Your task to perform on an android device: Open Wikipedia Image 0: 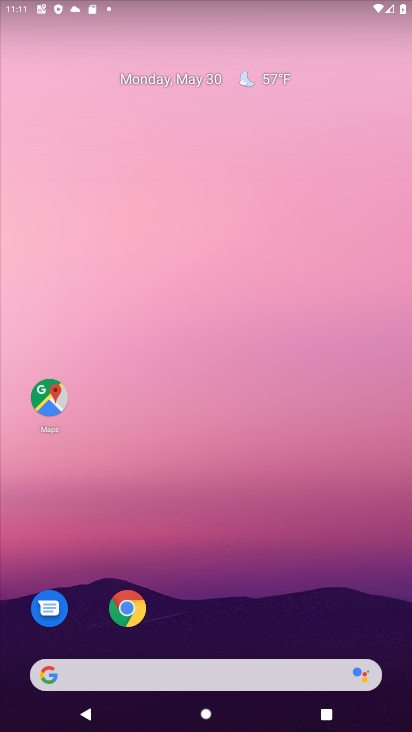
Step 0: drag from (308, 550) to (318, 15)
Your task to perform on an android device: Open Wikipedia Image 1: 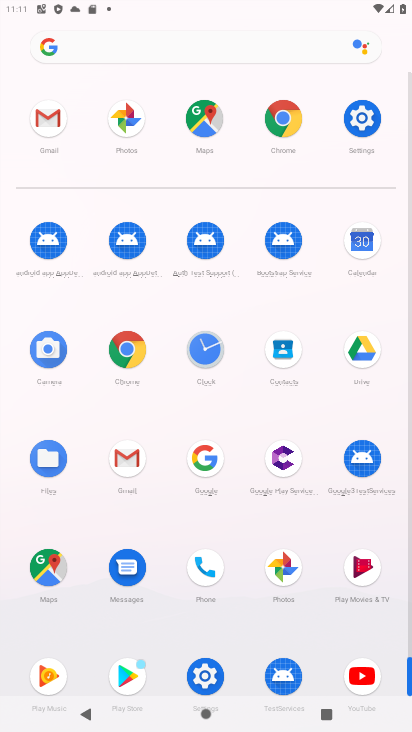
Step 1: click (129, 348)
Your task to perform on an android device: Open Wikipedia Image 2: 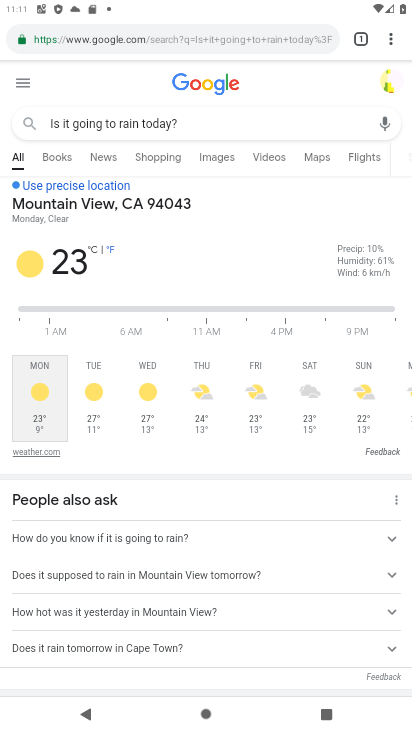
Step 2: click (162, 41)
Your task to perform on an android device: Open Wikipedia Image 3: 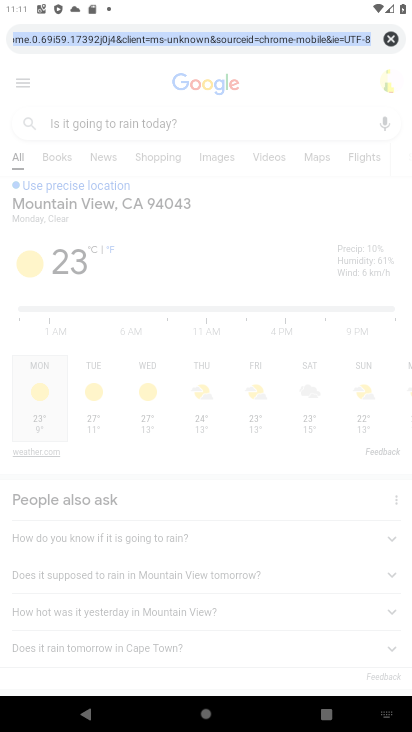
Step 3: click (387, 40)
Your task to perform on an android device: Open Wikipedia Image 4: 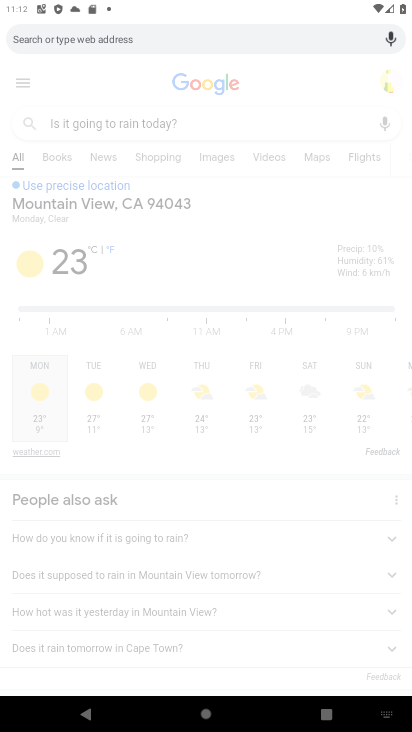
Step 4: type " Wikipedia"
Your task to perform on an android device: Open Wikipedia Image 5: 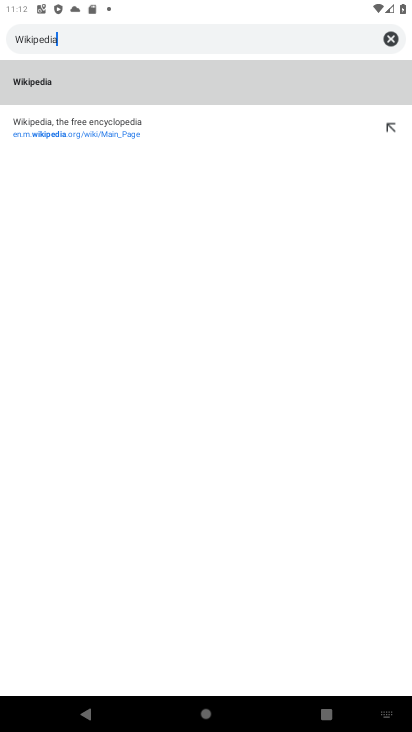
Step 5: click (111, 124)
Your task to perform on an android device: Open Wikipedia Image 6: 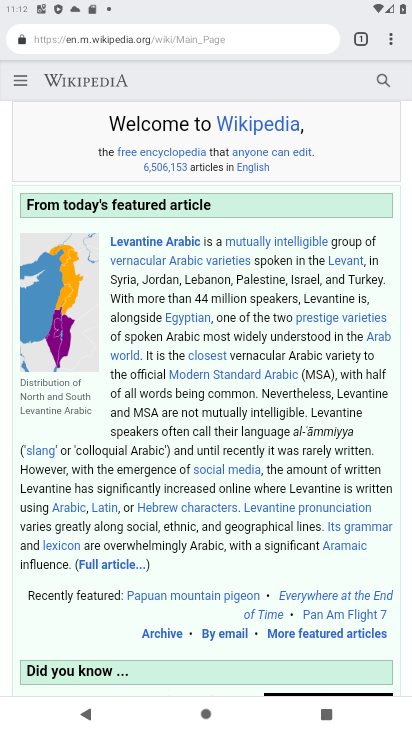
Step 6: task complete